Your task to perform on an android device: turn off picture-in-picture Image 0: 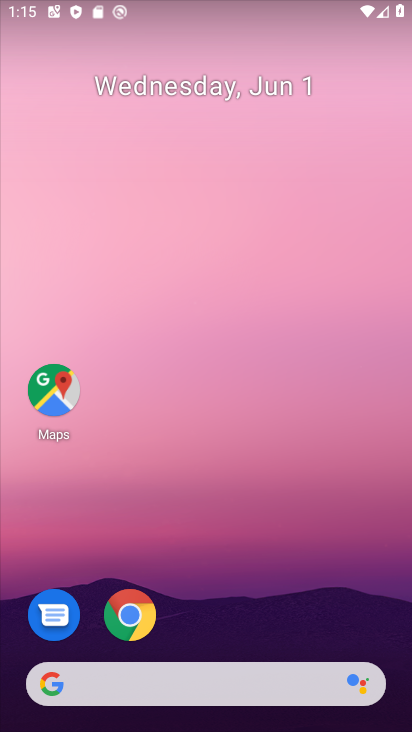
Step 0: task complete